Your task to perform on an android device: set the stopwatch Image 0: 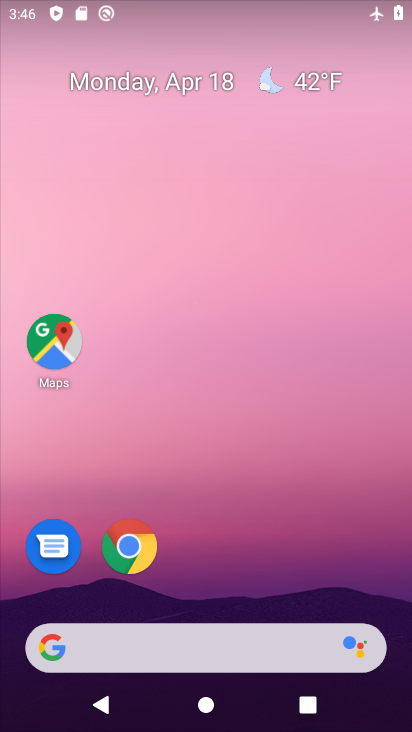
Step 0: drag from (274, 484) to (271, 136)
Your task to perform on an android device: set the stopwatch Image 1: 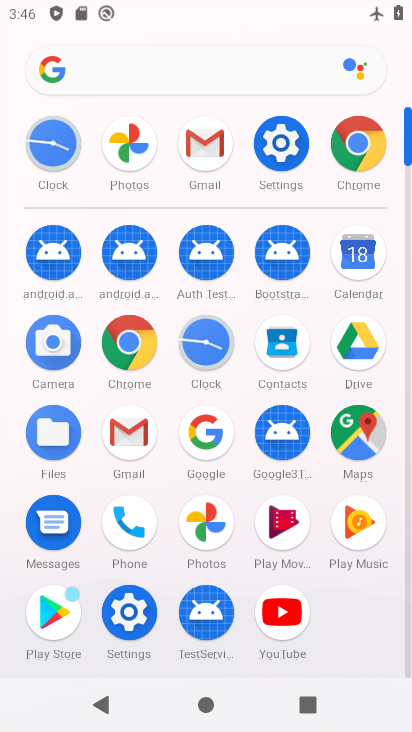
Step 1: click (290, 149)
Your task to perform on an android device: set the stopwatch Image 2: 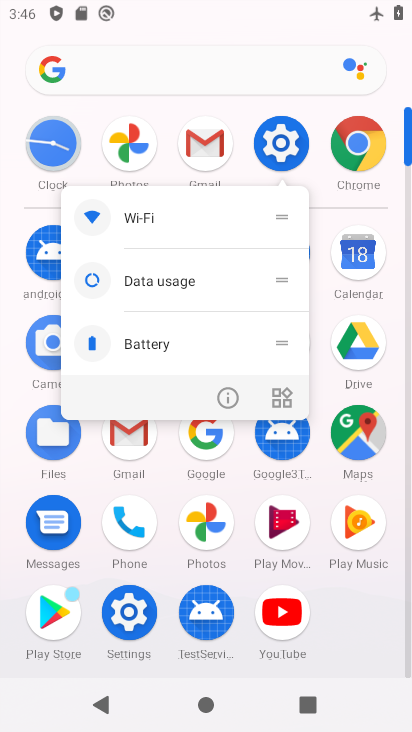
Step 2: click (192, 224)
Your task to perform on an android device: set the stopwatch Image 3: 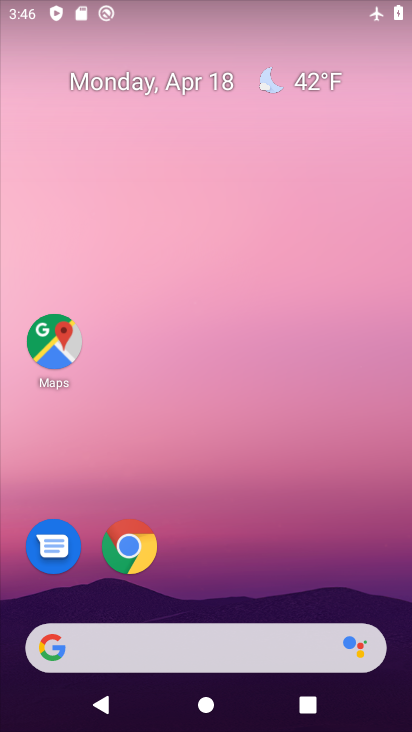
Step 3: click (264, 94)
Your task to perform on an android device: set the stopwatch Image 4: 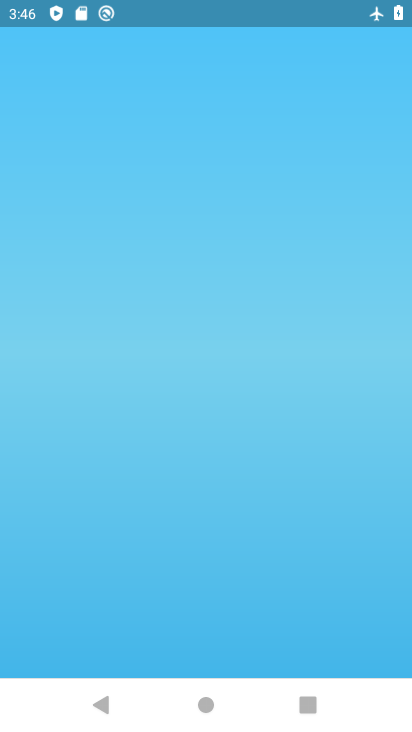
Step 4: drag from (261, 534) to (225, 124)
Your task to perform on an android device: set the stopwatch Image 5: 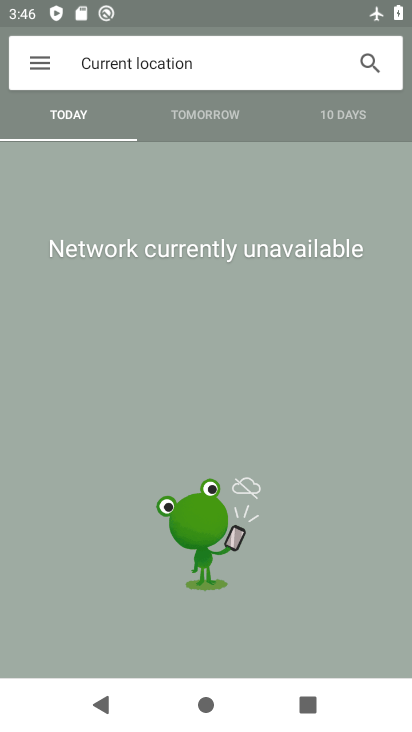
Step 5: press home button
Your task to perform on an android device: set the stopwatch Image 6: 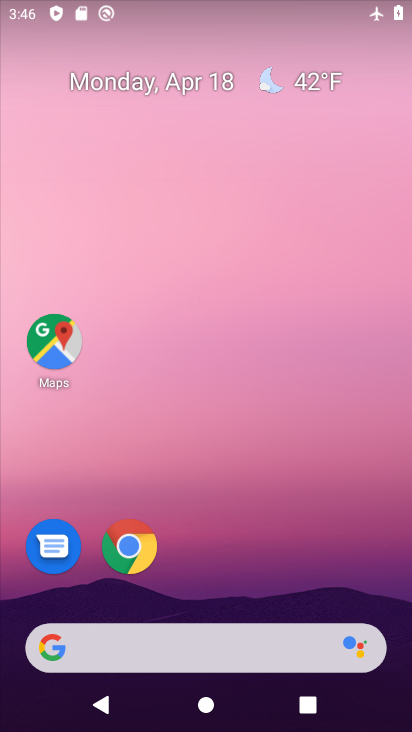
Step 6: drag from (245, 569) to (294, 122)
Your task to perform on an android device: set the stopwatch Image 7: 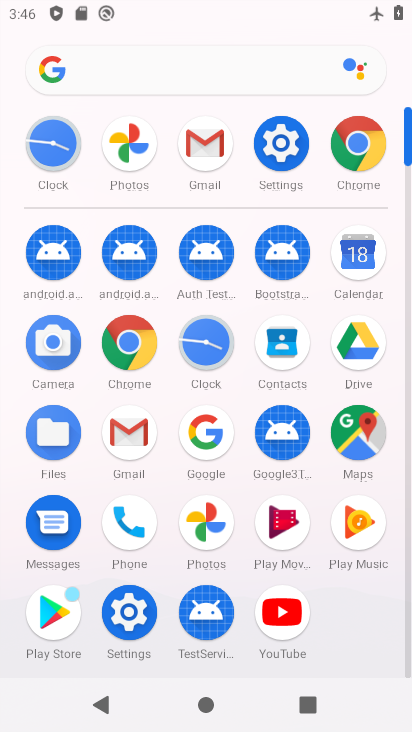
Step 7: click (221, 345)
Your task to perform on an android device: set the stopwatch Image 8: 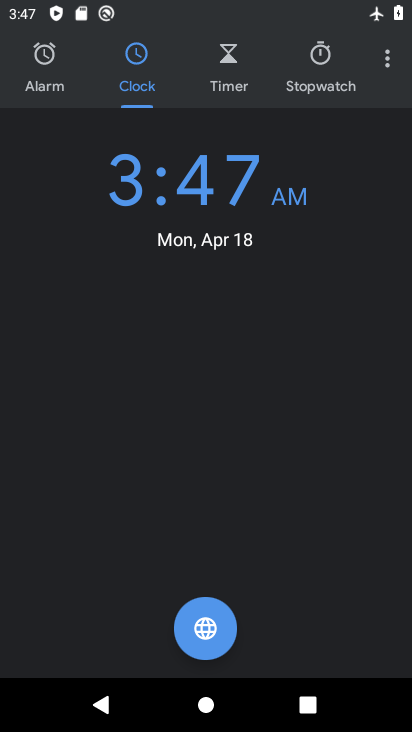
Step 8: click (316, 62)
Your task to perform on an android device: set the stopwatch Image 9: 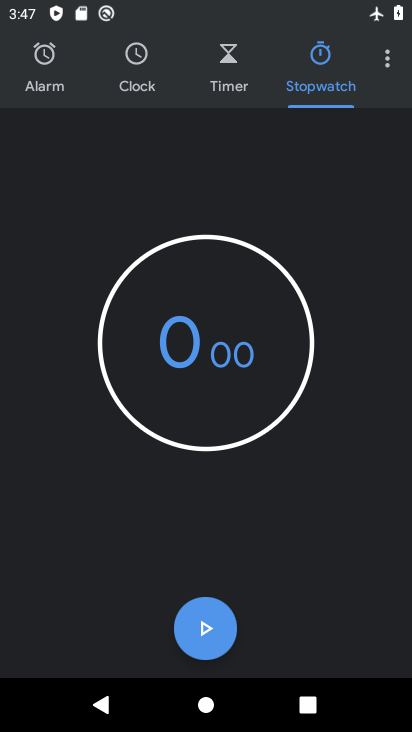
Step 9: click (214, 624)
Your task to perform on an android device: set the stopwatch Image 10: 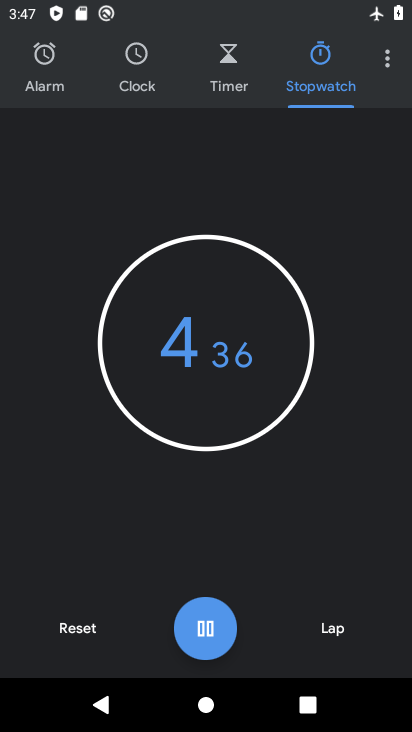
Step 10: click (221, 608)
Your task to perform on an android device: set the stopwatch Image 11: 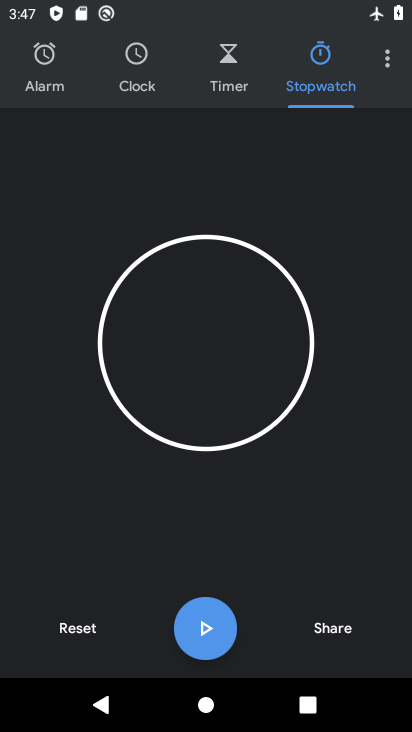
Step 11: task complete